Your task to perform on an android device: Open Android settings Image 0: 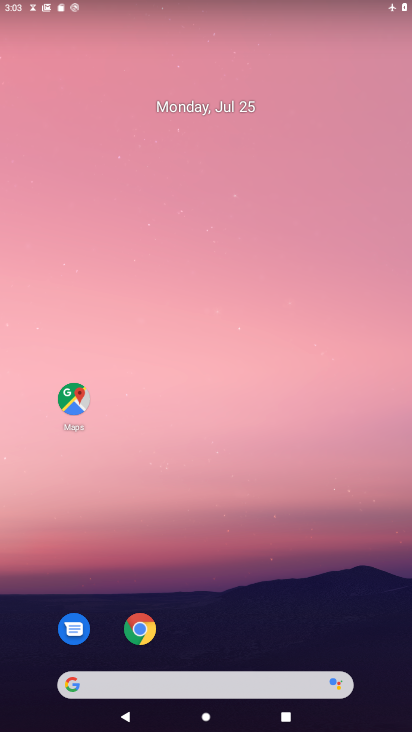
Step 0: drag from (339, 622) to (151, 166)
Your task to perform on an android device: Open Android settings Image 1: 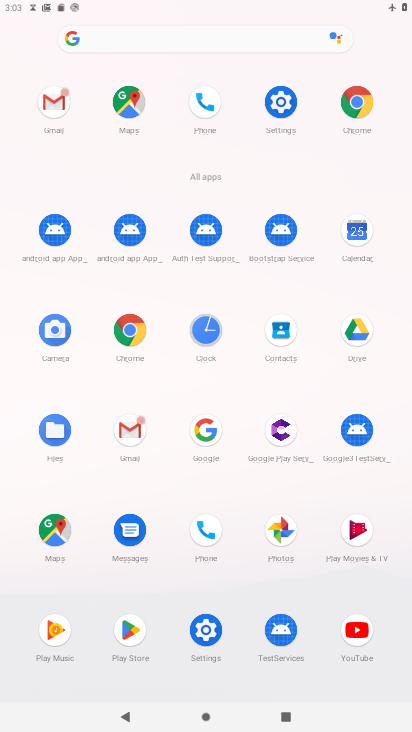
Step 1: click (303, 93)
Your task to perform on an android device: Open Android settings Image 2: 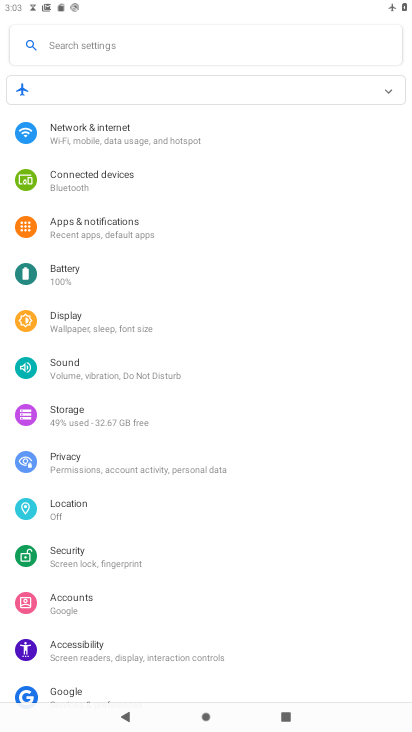
Step 2: task complete